Your task to perform on an android device: Open ESPN.com Image 0: 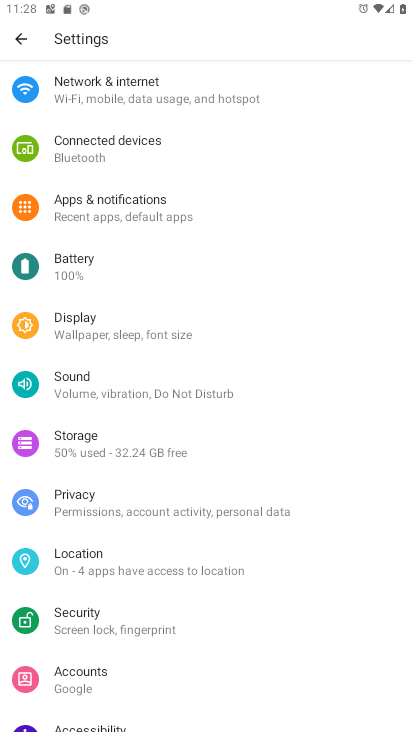
Step 0: task complete